Your task to perform on an android device: turn pop-ups off in chrome Image 0: 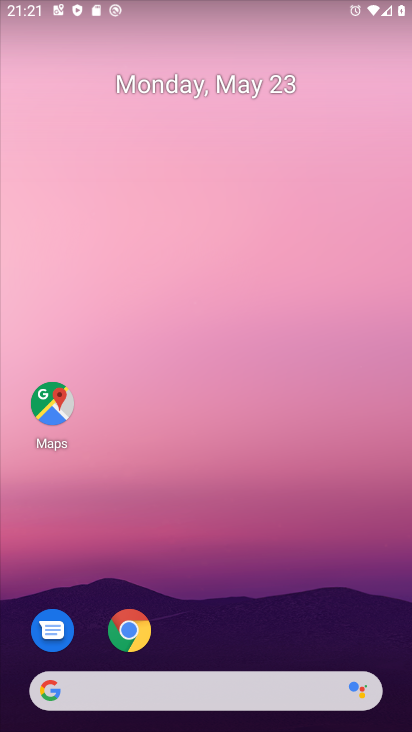
Step 0: click (133, 633)
Your task to perform on an android device: turn pop-ups off in chrome Image 1: 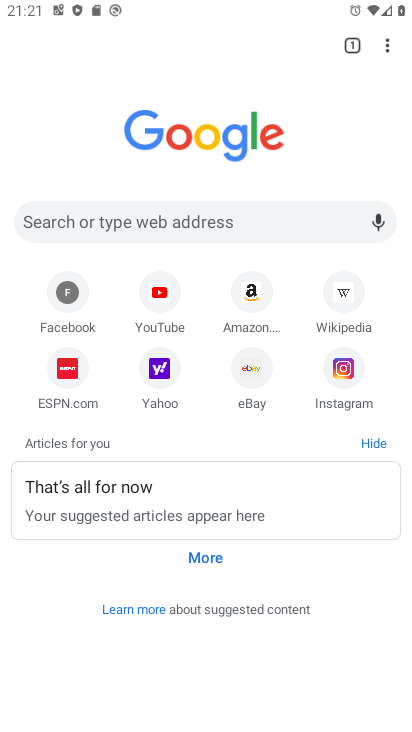
Step 1: click (387, 45)
Your task to perform on an android device: turn pop-ups off in chrome Image 2: 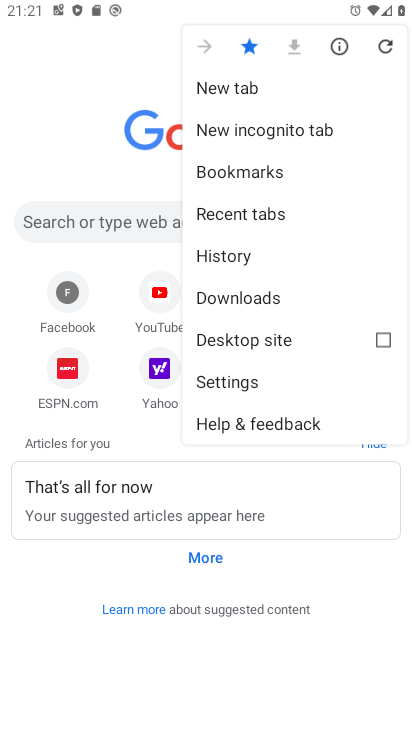
Step 2: click (232, 384)
Your task to perform on an android device: turn pop-ups off in chrome Image 3: 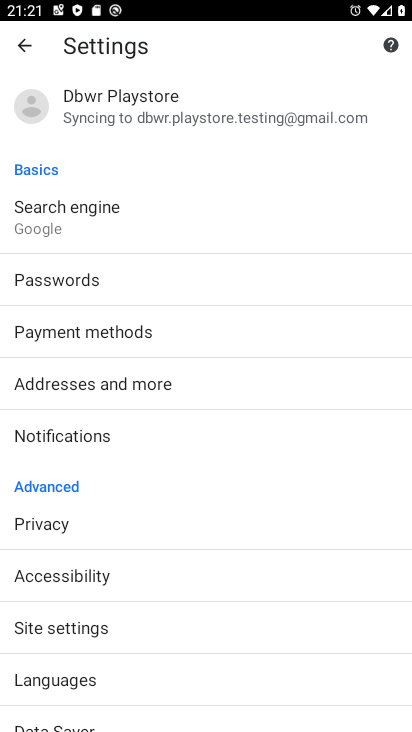
Step 3: click (44, 624)
Your task to perform on an android device: turn pop-ups off in chrome Image 4: 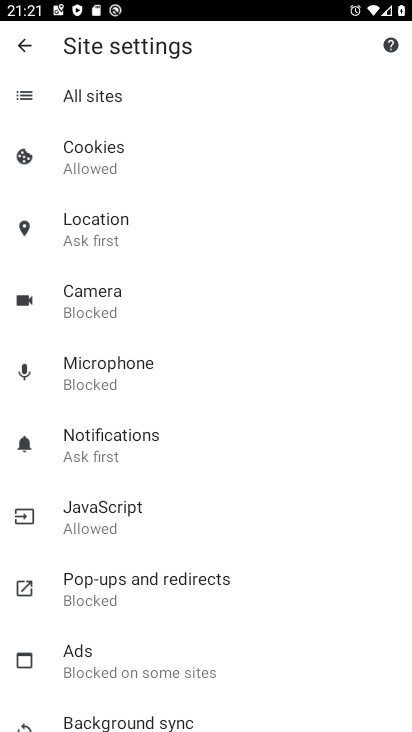
Step 4: click (138, 587)
Your task to perform on an android device: turn pop-ups off in chrome Image 5: 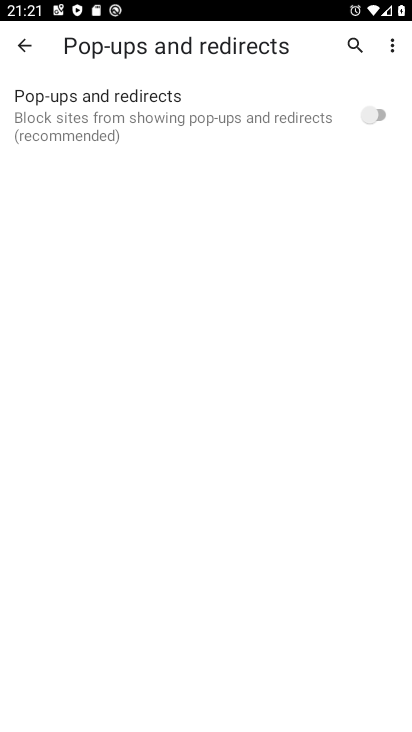
Step 5: task complete